Your task to perform on an android device: clear history in the chrome app Image 0: 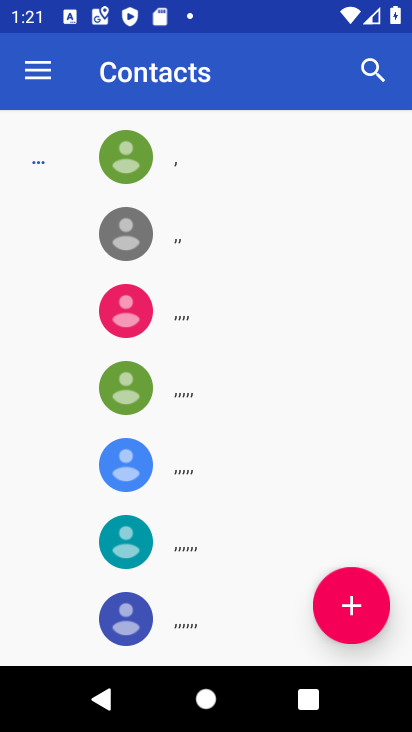
Step 0: press home button
Your task to perform on an android device: clear history in the chrome app Image 1: 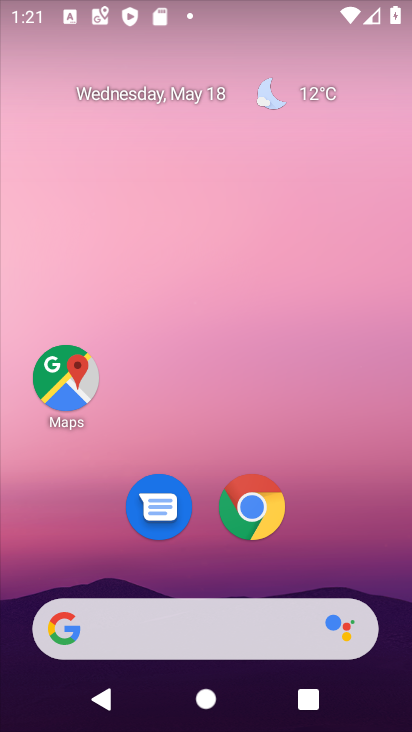
Step 1: click (248, 501)
Your task to perform on an android device: clear history in the chrome app Image 2: 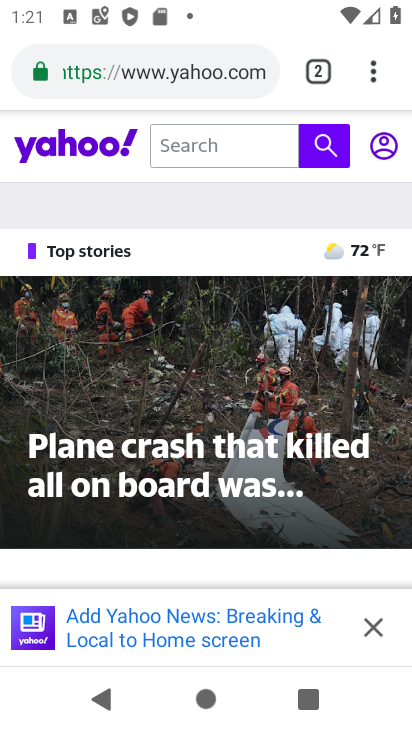
Step 2: click (373, 78)
Your task to perform on an android device: clear history in the chrome app Image 3: 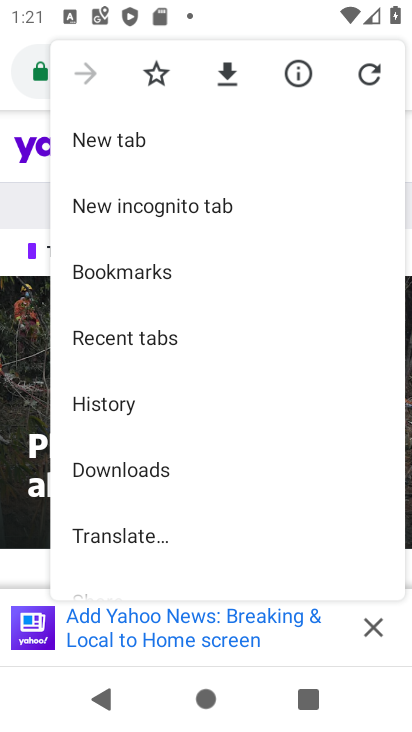
Step 3: click (113, 406)
Your task to perform on an android device: clear history in the chrome app Image 4: 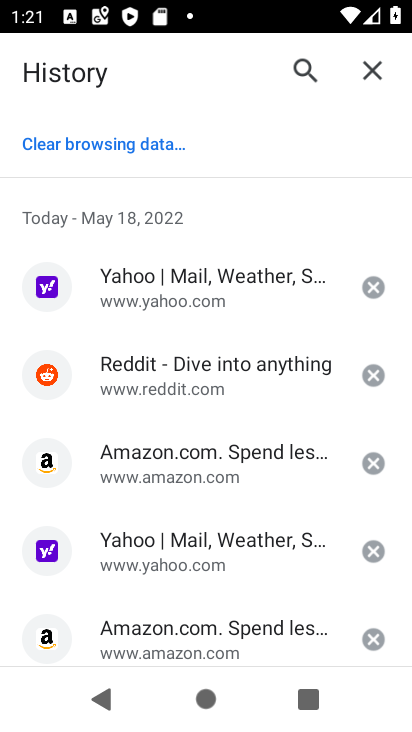
Step 4: click (86, 137)
Your task to perform on an android device: clear history in the chrome app Image 5: 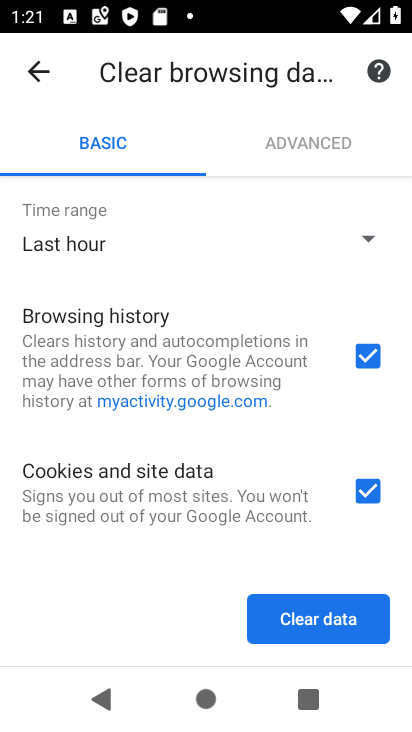
Step 5: click (367, 482)
Your task to perform on an android device: clear history in the chrome app Image 6: 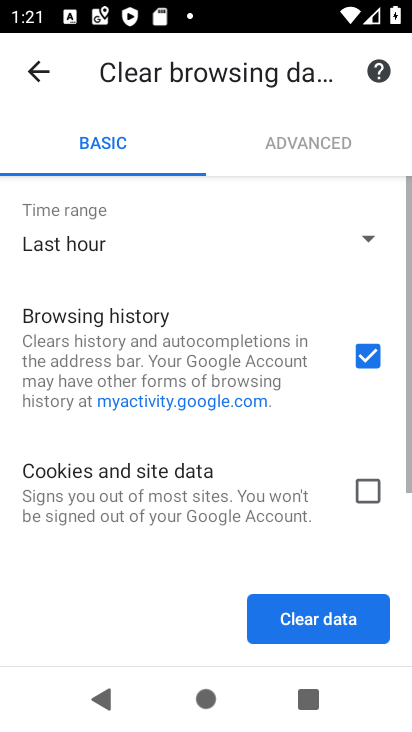
Step 6: drag from (247, 533) to (251, 217)
Your task to perform on an android device: clear history in the chrome app Image 7: 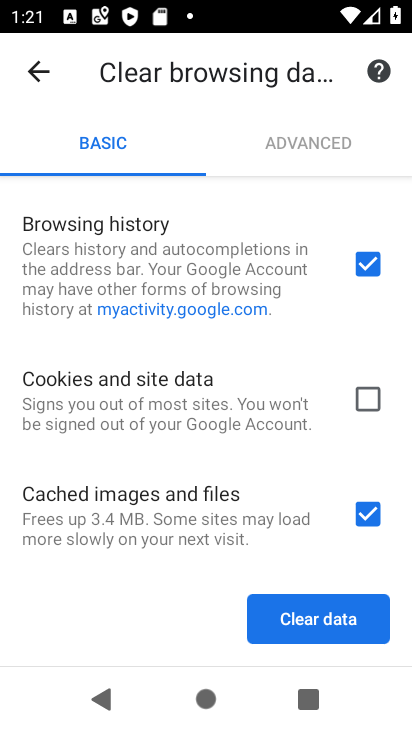
Step 7: click (363, 517)
Your task to perform on an android device: clear history in the chrome app Image 8: 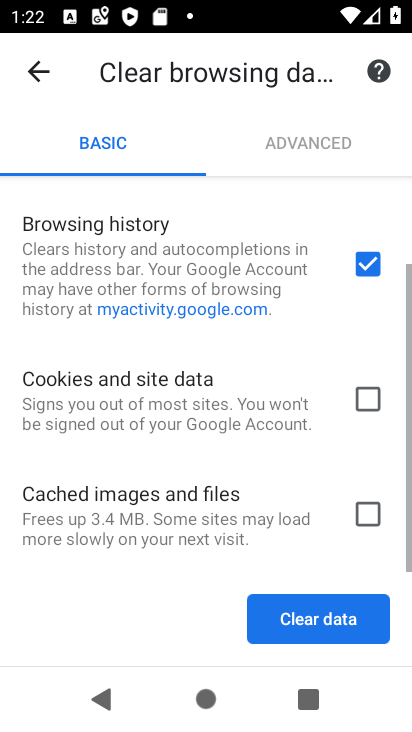
Step 8: click (317, 620)
Your task to perform on an android device: clear history in the chrome app Image 9: 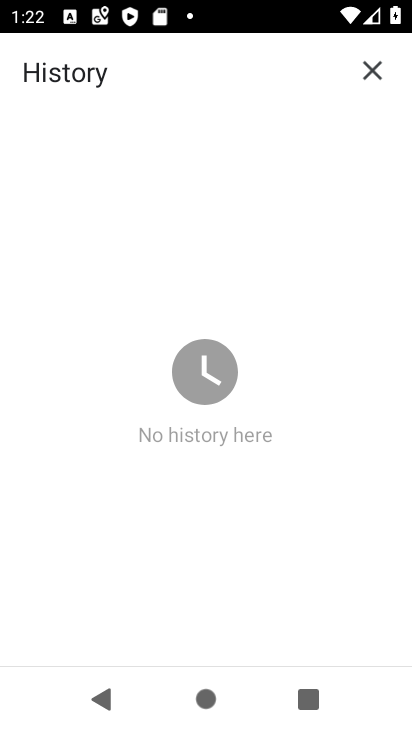
Step 9: task complete